Your task to perform on an android device: set the timer Image 0: 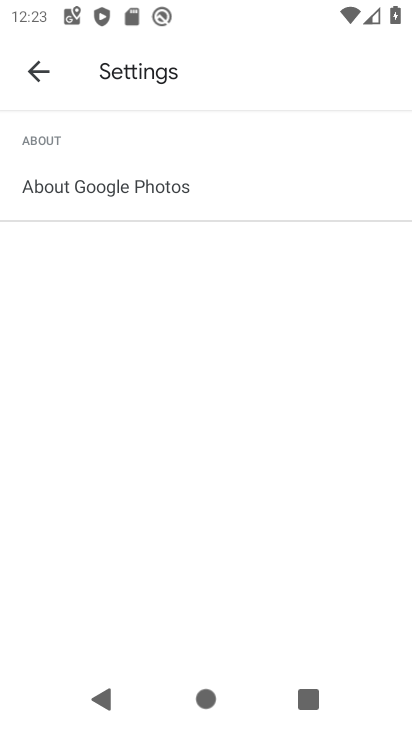
Step 0: press home button
Your task to perform on an android device: set the timer Image 1: 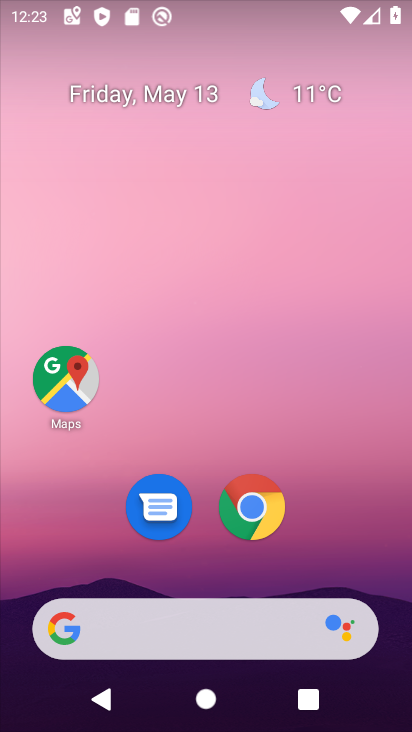
Step 1: drag from (225, 588) to (198, 54)
Your task to perform on an android device: set the timer Image 2: 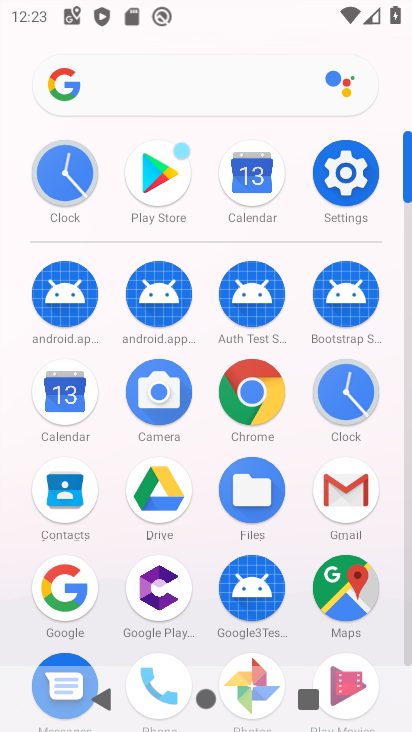
Step 2: click (343, 420)
Your task to perform on an android device: set the timer Image 3: 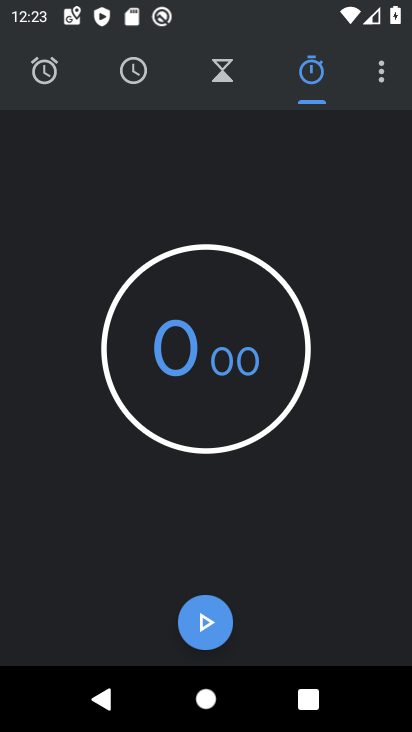
Step 3: click (204, 74)
Your task to perform on an android device: set the timer Image 4: 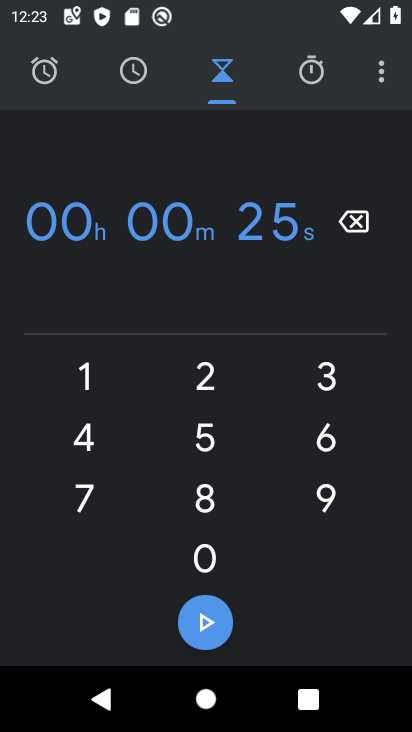
Step 4: click (216, 602)
Your task to perform on an android device: set the timer Image 5: 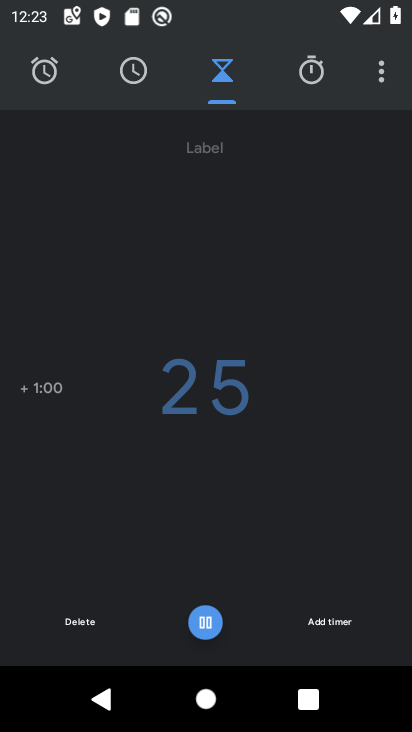
Step 5: task complete